Your task to perform on an android device: turn on location history Image 0: 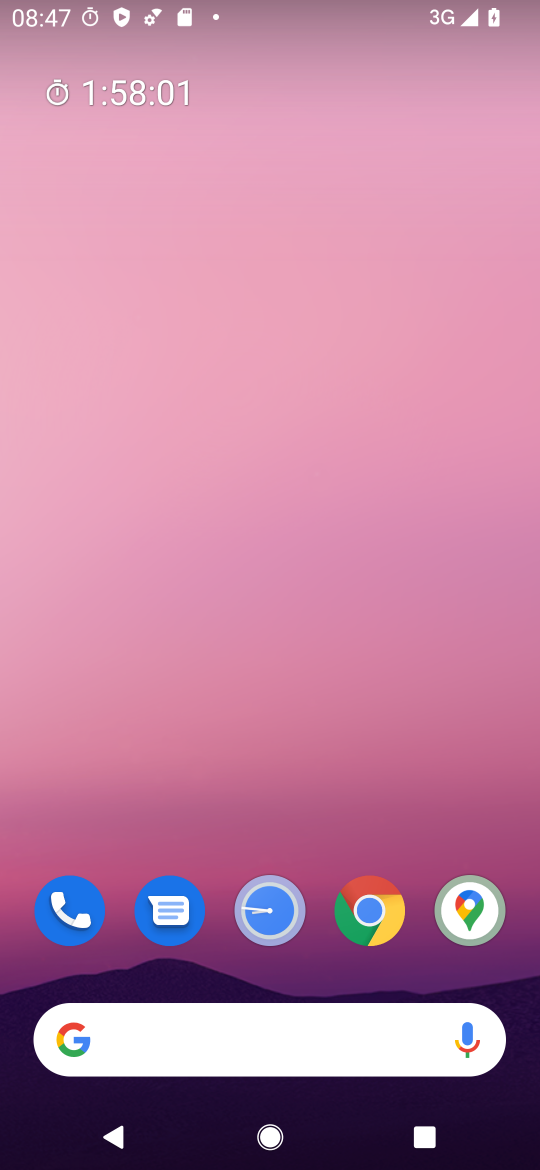
Step 0: drag from (209, 1005) to (331, 225)
Your task to perform on an android device: turn on location history Image 1: 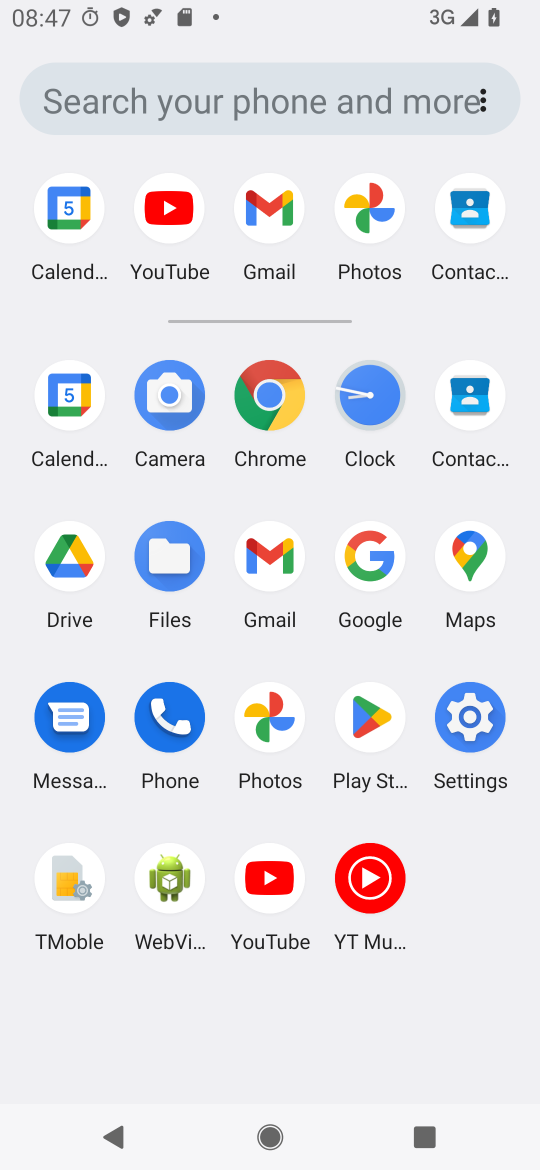
Step 1: click (470, 725)
Your task to perform on an android device: turn on location history Image 2: 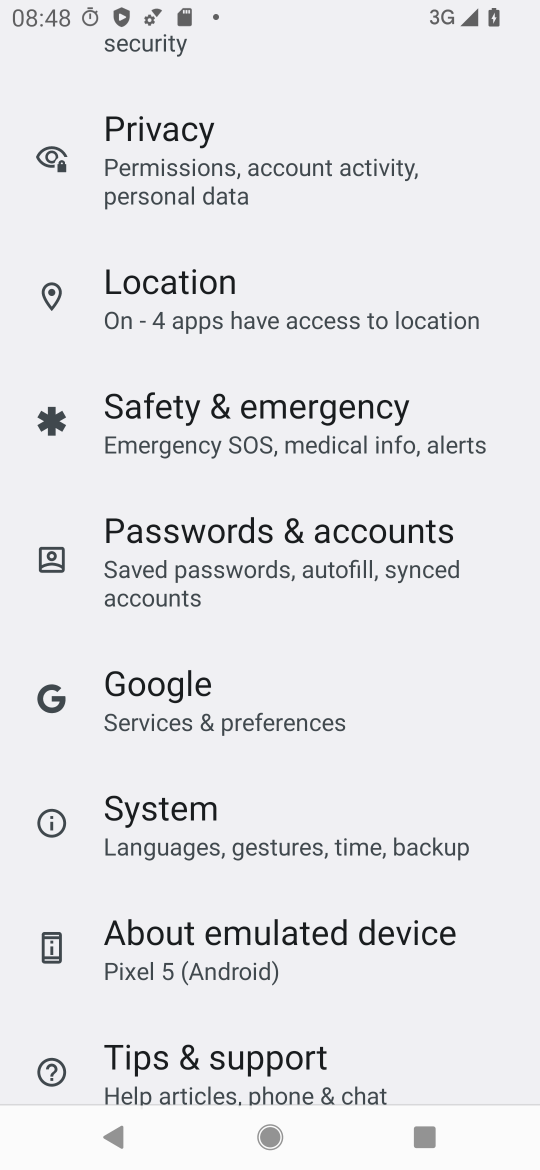
Step 2: click (217, 297)
Your task to perform on an android device: turn on location history Image 3: 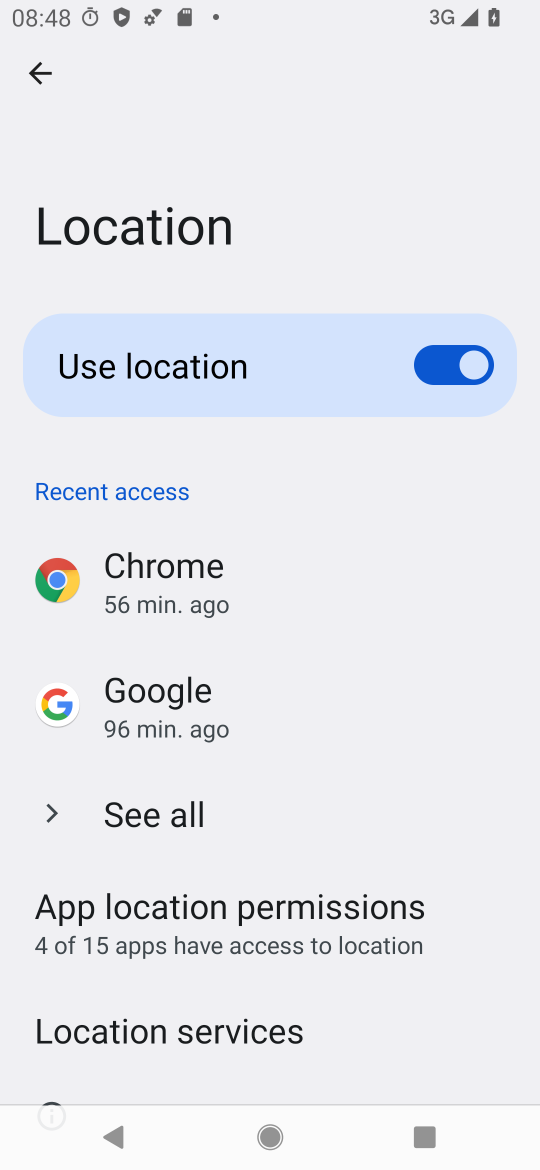
Step 3: drag from (503, 1011) to (418, 10)
Your task to perform on an android device: turn on location history Image 4: 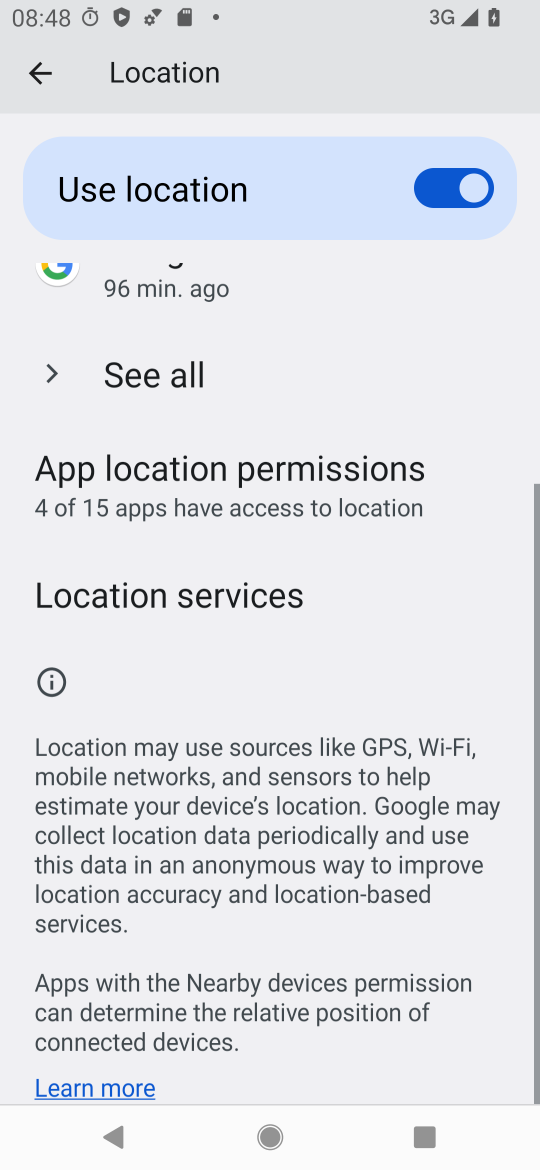
Step 4: click (237, 590)
Your task to perform on an android device: turn on location history Image 5: 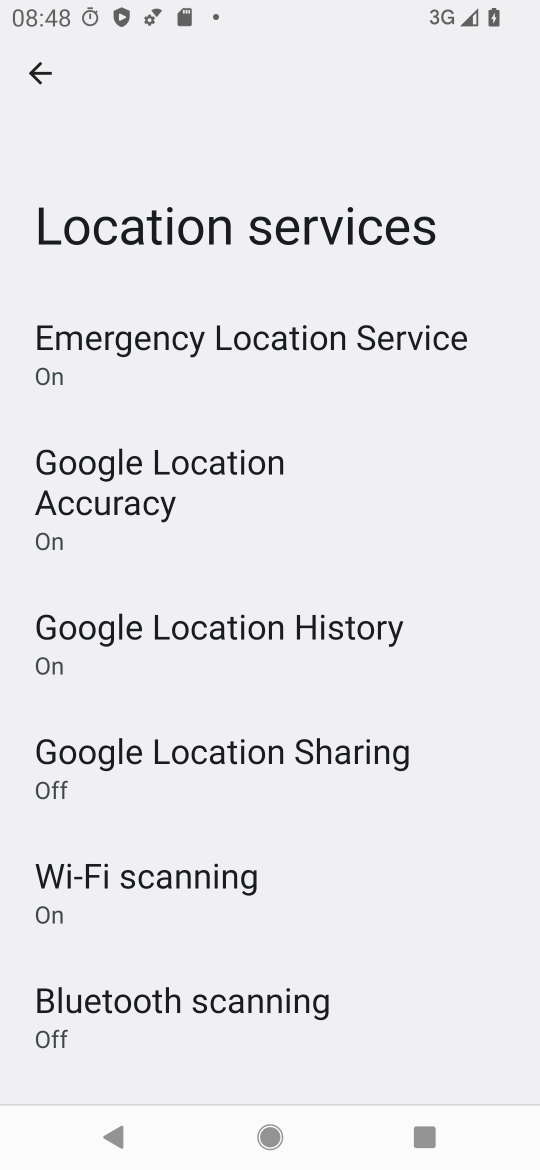
Step 5: click (310, 625)
Your task to perform on an android device: turn on location history Image 6: 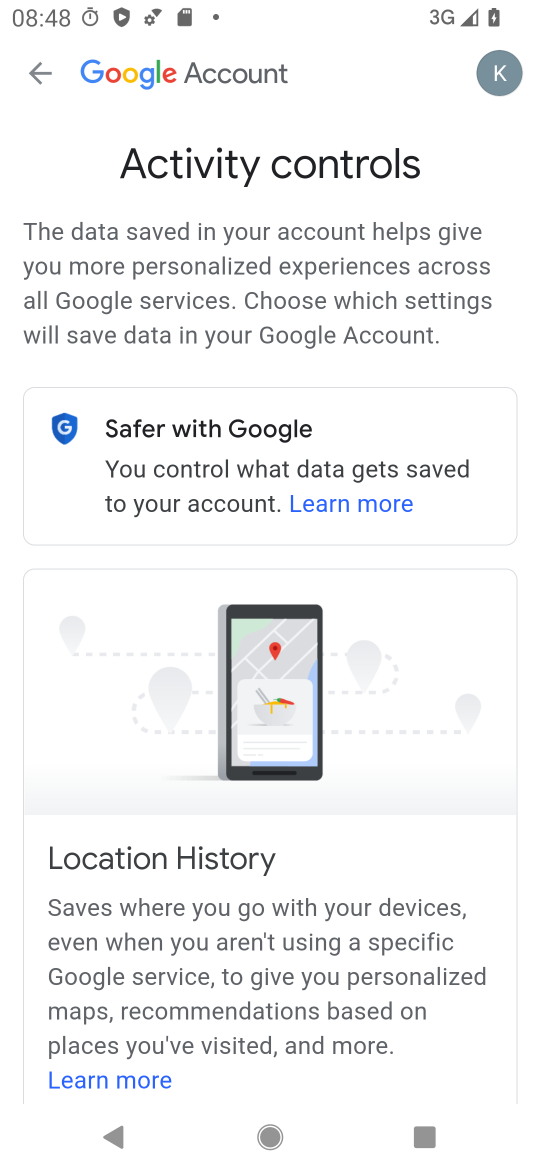
Step 6: task complete